Your task to perform on an android device: See recent photos Image 0: 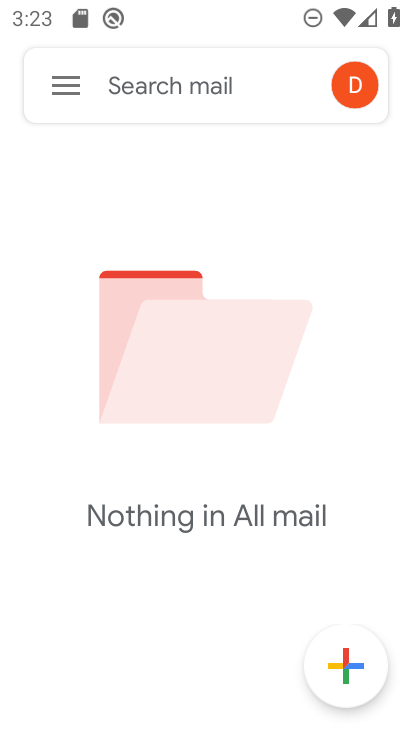
Step 0: press home button
Your task to perform on an android device: See recent photos Image 1: 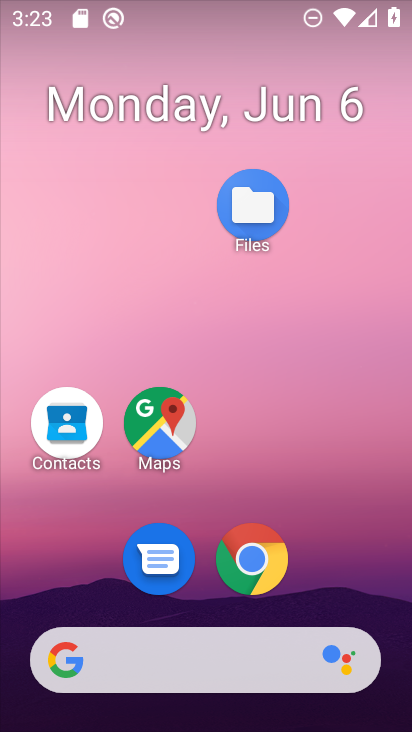
Step 1: drag from (182, 651) to (228, 212)
Your task to perform on an android device: See recent photos Image 2: 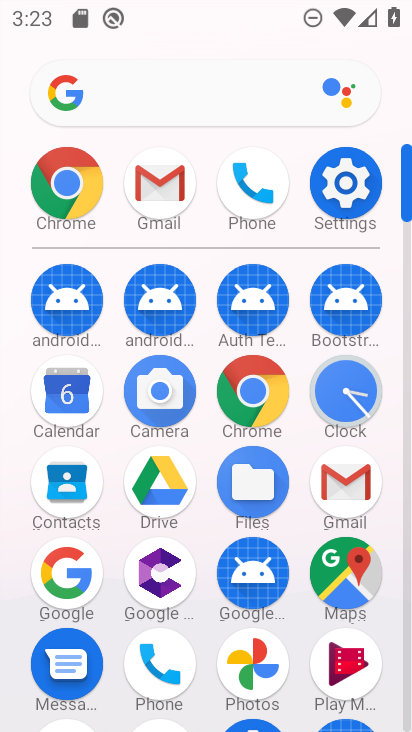
Step 2: click (263, 690)
Your task to perform on an android device: See recent photos Image 3: 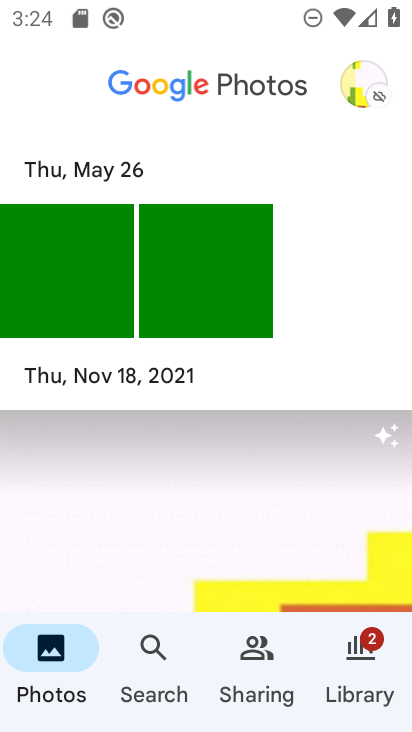
Step 3: click (48, 680)
Your task to perform on an android device: See recent photos Image 4: 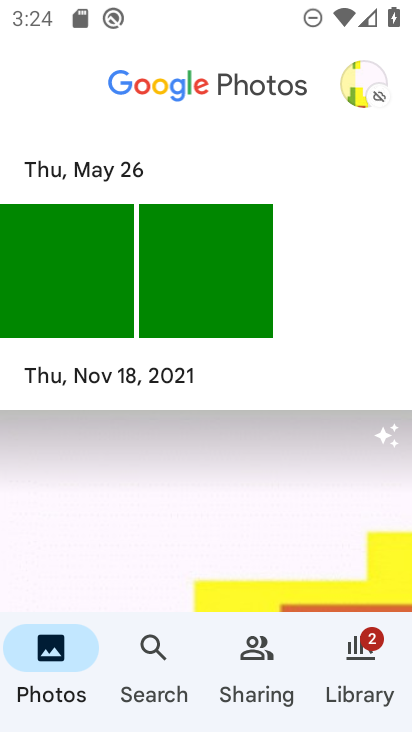
Step 4: task complete